Your task to perform on an android device: turn on priority inbox in the gmail app Image 0: 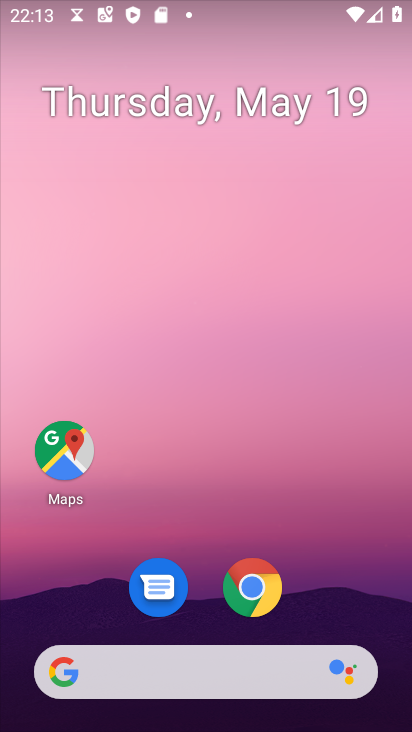
Step 0: drag from (198, 683) to (239, 229)
Your task to perform on an android device: turn on priority inbox in the gmail app Image 1: 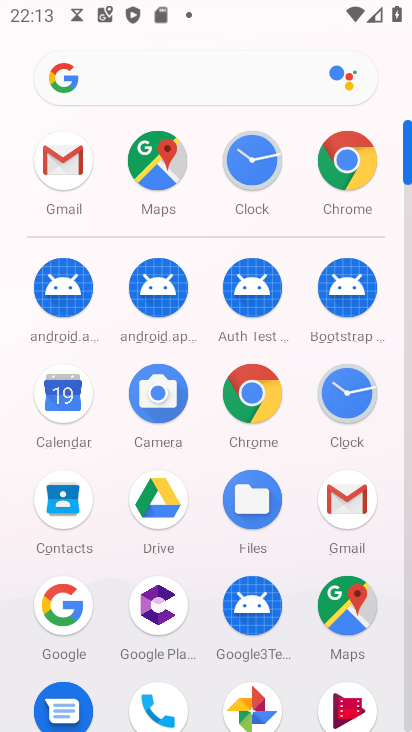
Step 1: click (56, 184)
Your task to perform on an android device: turn on priority inbox in the gmail app Image 2: 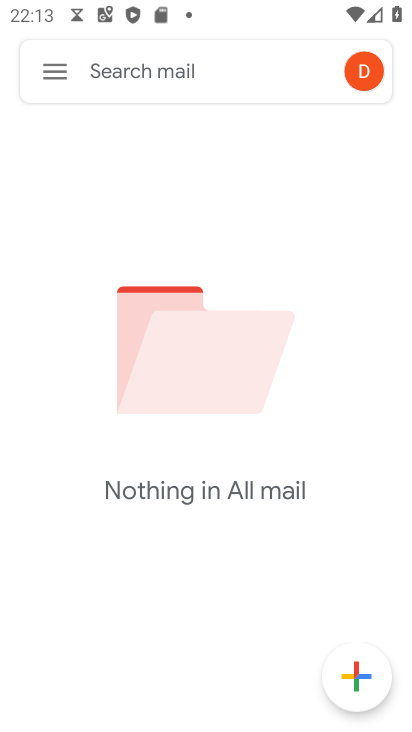
Step 2: click (57, 82)
Your task to perform on an android device: turn on priority inbox in the gmail app Image 3: 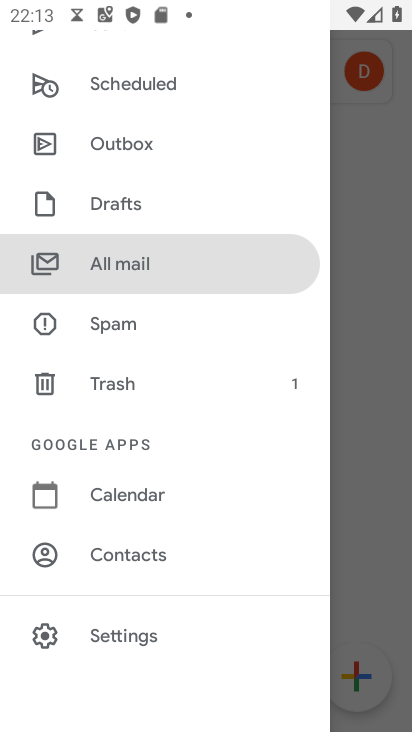
Step 3: click (144, 630)
Your task to perform on an android device: turn on priority inbox in the gmail app Image 4: 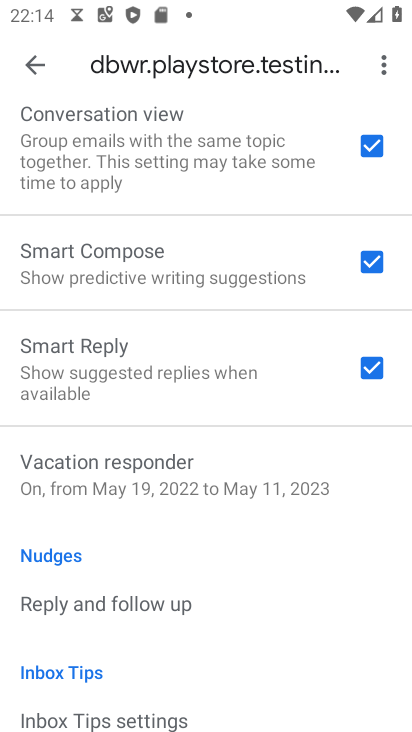
Step 4: drag from (198, 163) to (83, 663)
Your task to perform on an android device: turn on priority inbox in the gmail app Image 5: 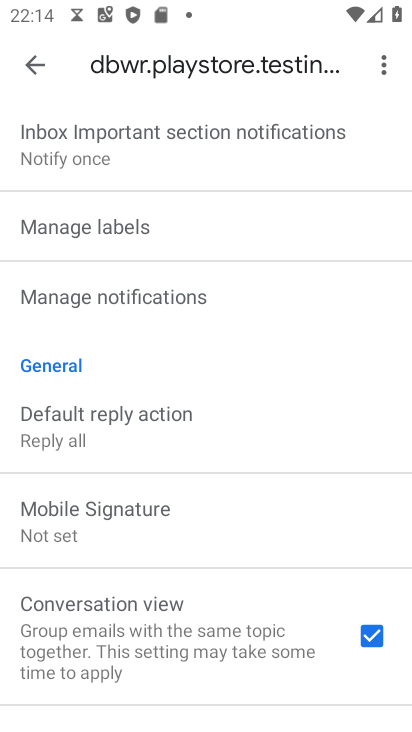
Step 5: drag from (123, 137) to (132, 730)
Your task to perform on an android device: turn on priority inbox in the gmail app Image 6: 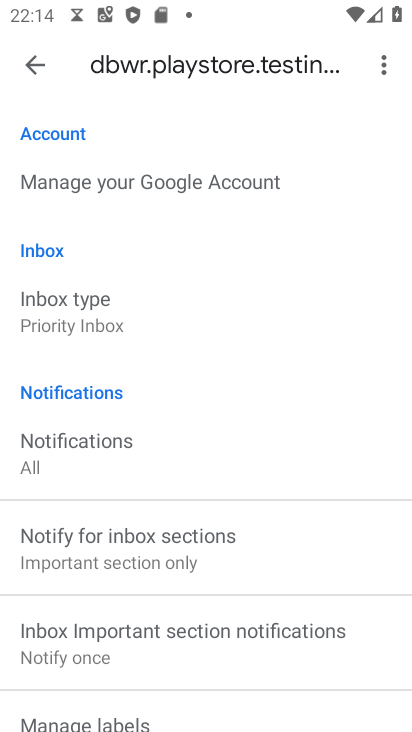
Step 6: click (91, 327)
Your task to perform on an android device: turn on priority inbox in the gmail app Image 7: 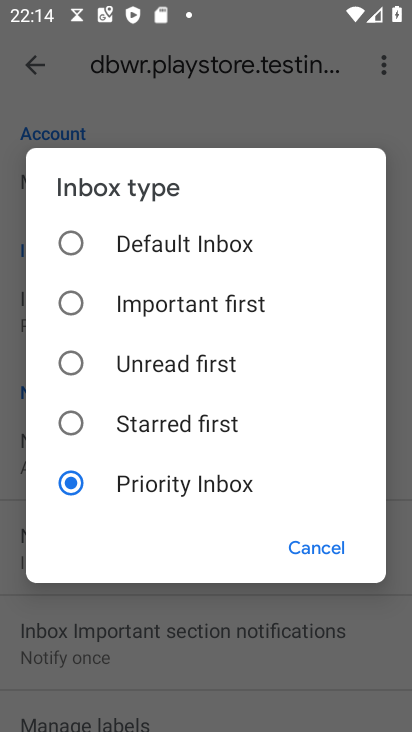
Step 7: click (132, 478)
Your task to perform on an android device: turn on priority inbox in the gmail app Image 8: 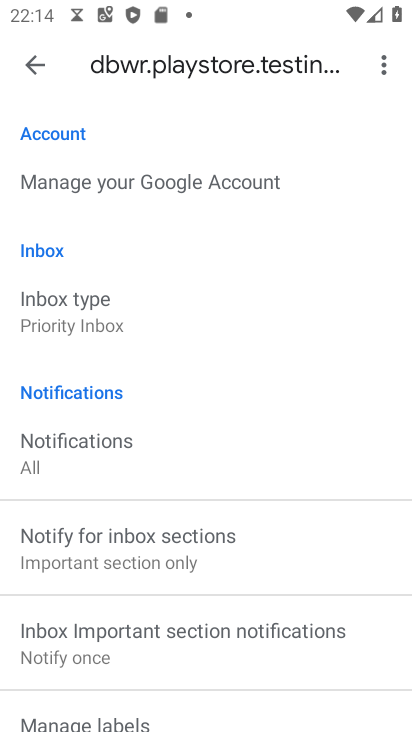
Step 8: task complete